Your task to perform on an android device: Go to Yahoo.com Image 0: 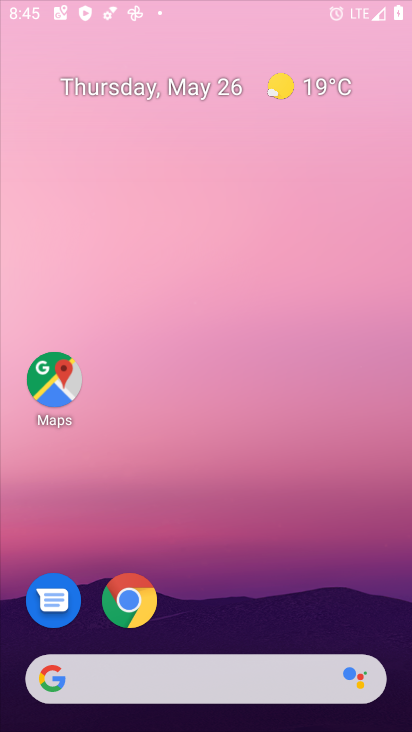
Step 0: press home button
Your task to perform on an android device: Go to Yahoo.com Image 1: 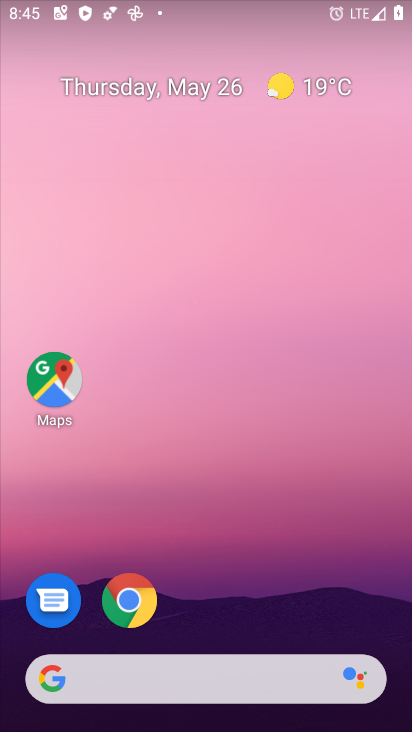
Step 1: click (65, 683)
Your task to perform on an android device: Go to Yahoo.com Image 2: 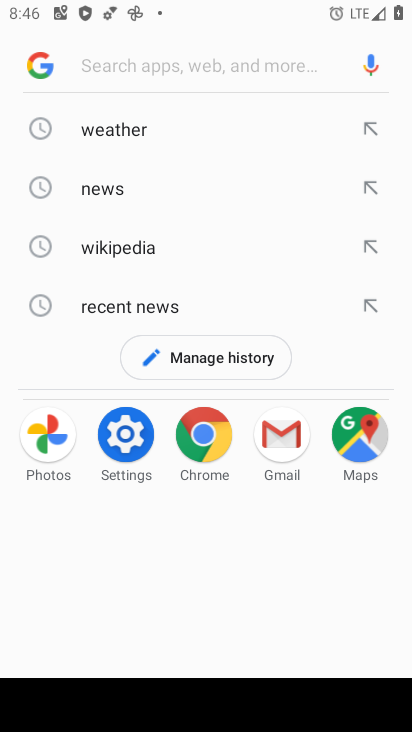
Step 2: type "Yahoo.com"
Your task to perform on an android device: Go to Yahoo.com Image 3: 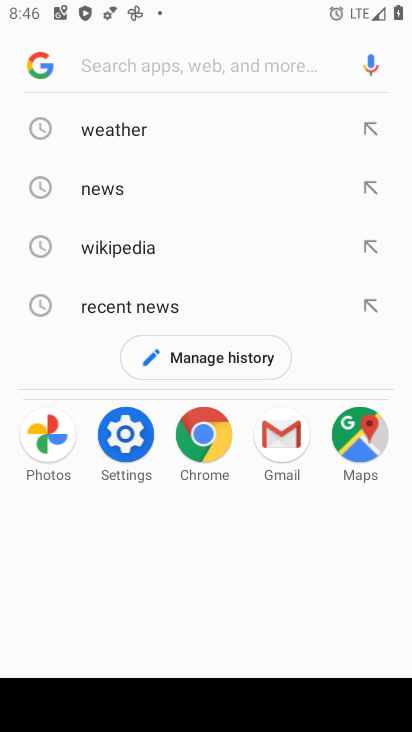
Step 3: click (162, 57)
Your task to perform on an android device: Go to Yahoo.com Image 4: 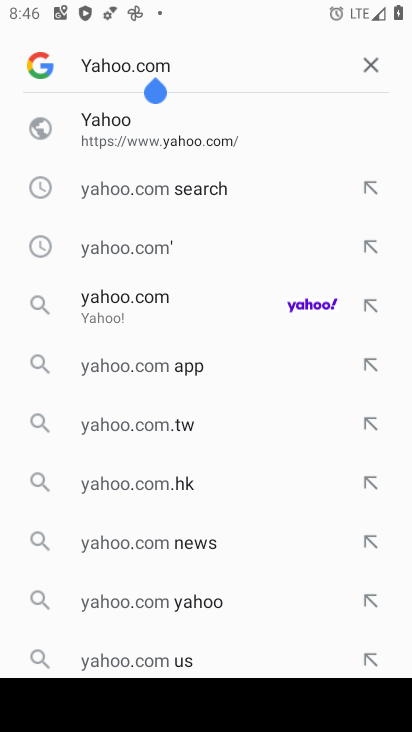
Step 4: click (116, 127)
Your task to perform on an android device: Go to Yahoo.com Image 5: 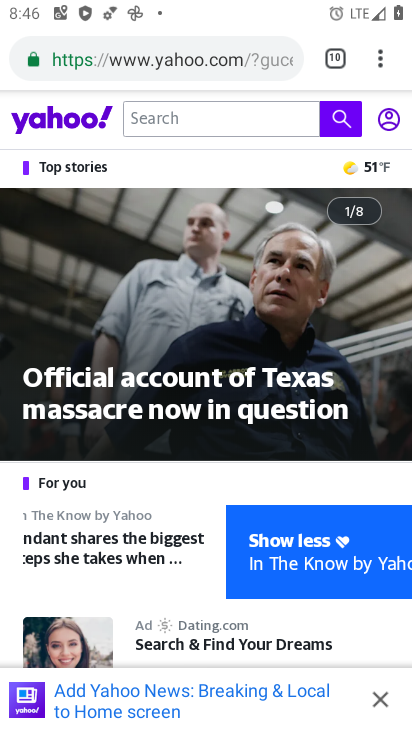
Step 5: task complete